Your task to perform on an android device: open a new tab in the chrome app Image 0: 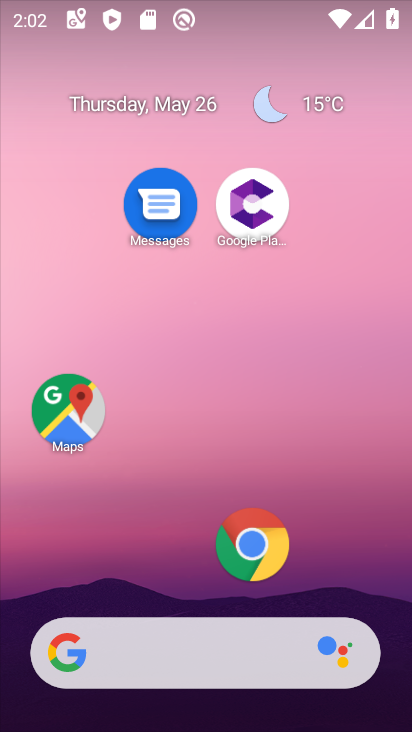
Step 0: click (258, 532)
Your task to perform on an android device: open a new tab in the chrome app Image 1: 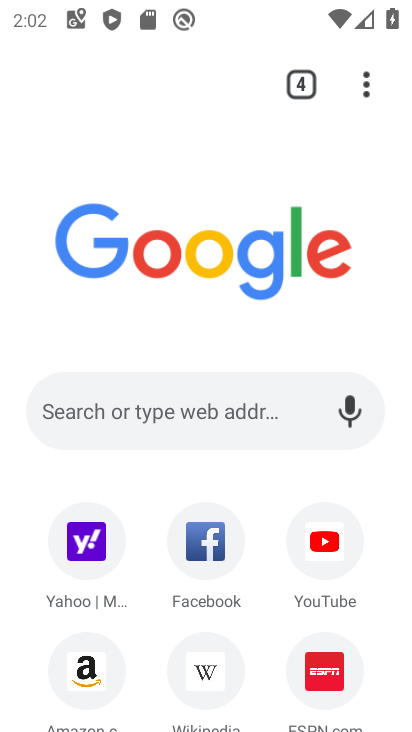
Step 1: task complete